Your task to perform on an android device: add a contact in the contacts app Image 0: 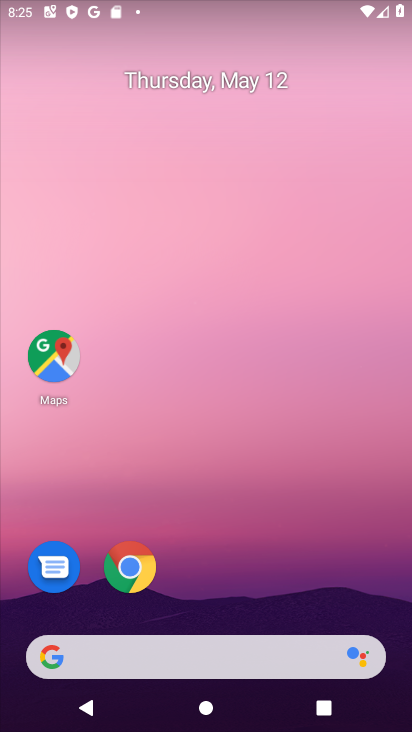
Step 0: drag from (200, 648) to (247, 120)
Your task to perform on an android device: add a contact in the contacts app Image 1: 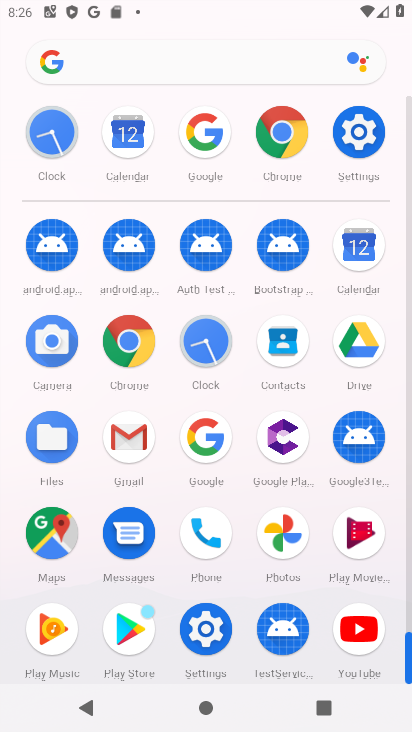
Step 1: click (312, 349)
Your task to perform on an android device: add a contact in the contacts app Image 2: 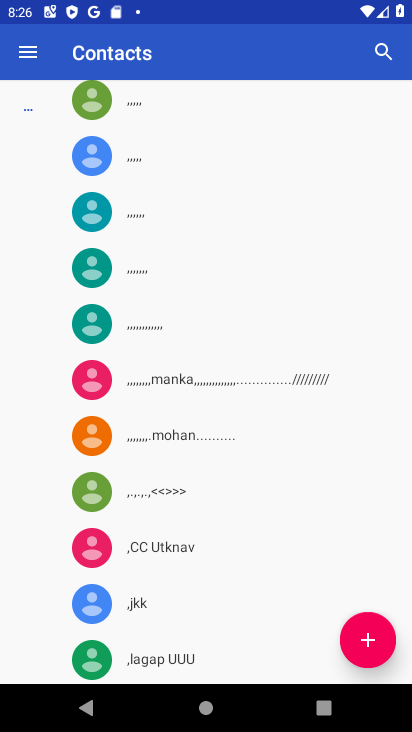
Step 2: click (382, 633)
Your task to perform on an android device: add a contact in the contacts app Image 3: 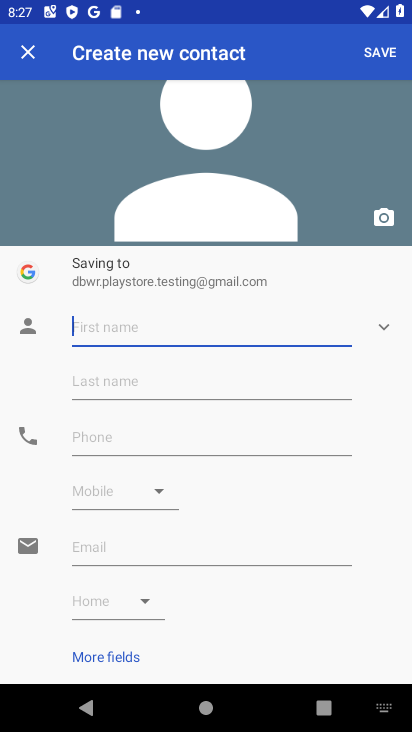
Step 3: type "bdtnfhdfm"
Your task to perform on an android device: add a contact in the contacts app Image 4: 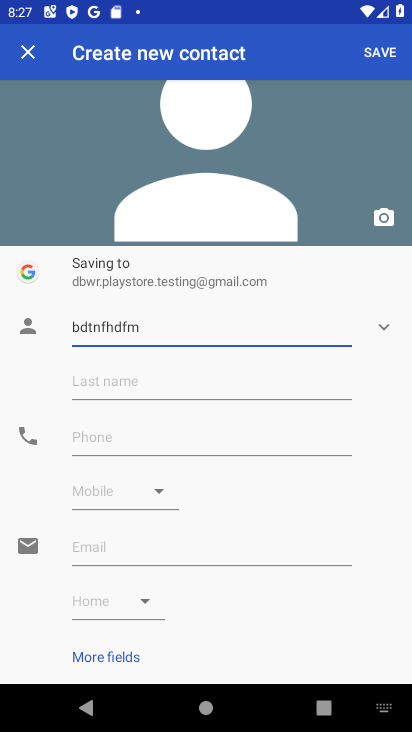
Step 4: click (136, 437)
Your task to perform on an android device: add a contact in the contacts app Image 5: 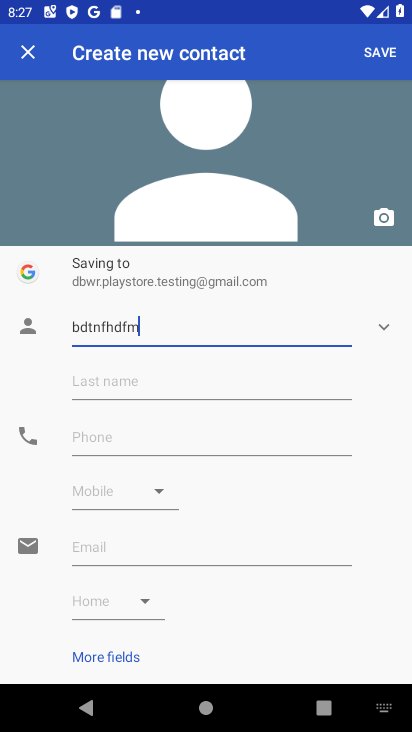
Step 5: click (137, 436)
Your task to perform on an android device: add a contact in the contacts app Image 6: 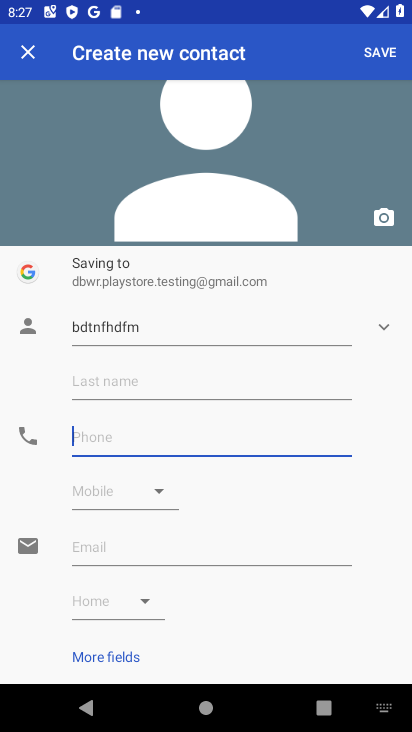
Step 6: type "090797697907"
Your task to perform on an android device: add a contact in the contacts app Image 7: 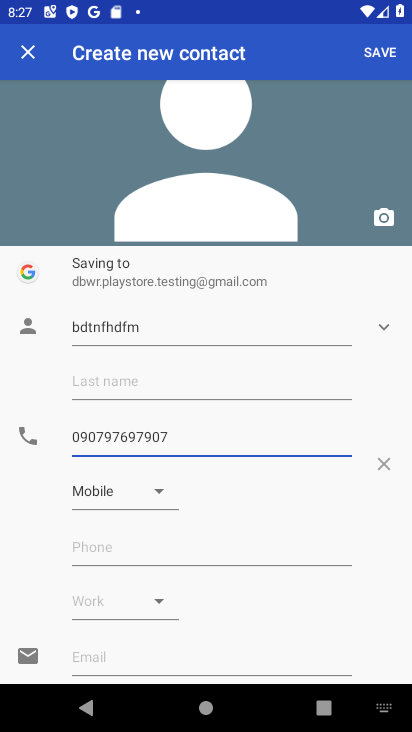
Step 7: click (384, 43)
Your task to perform on an android device: add a contact in the contacts app Image 8: 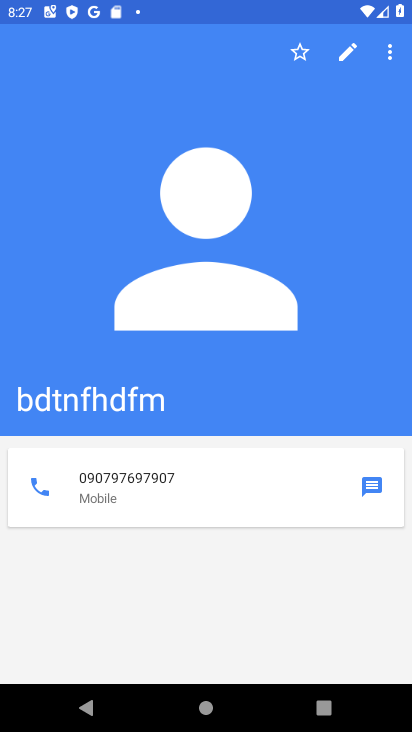
Step 8: task complete